Your task to perform on an android device: toggle translation in the chrome app Image 0: 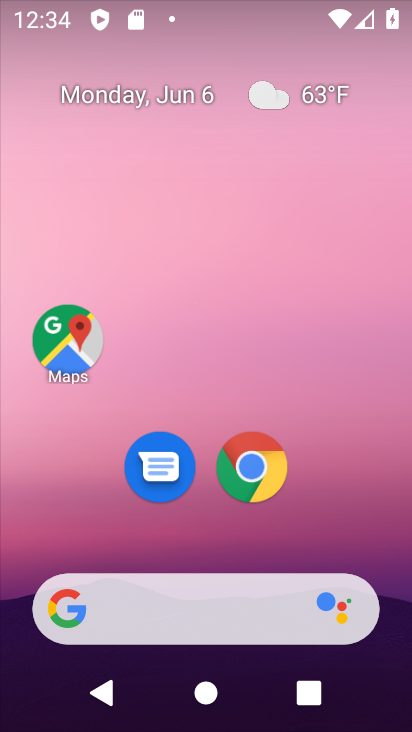
Step 0: drag from (392, 617) to (351, 164)
Your task to perform on an android device: toggle translation in the chrome app Image 1: 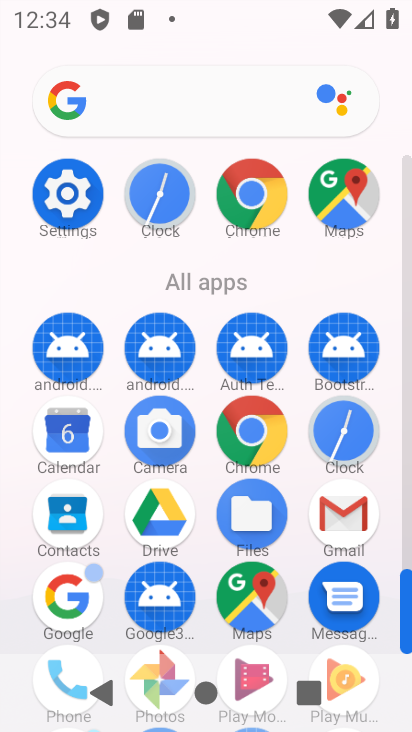
Step 1: click (274, 443)
Your task to perform on an android device: toggle translation in the chrome app Image 2: 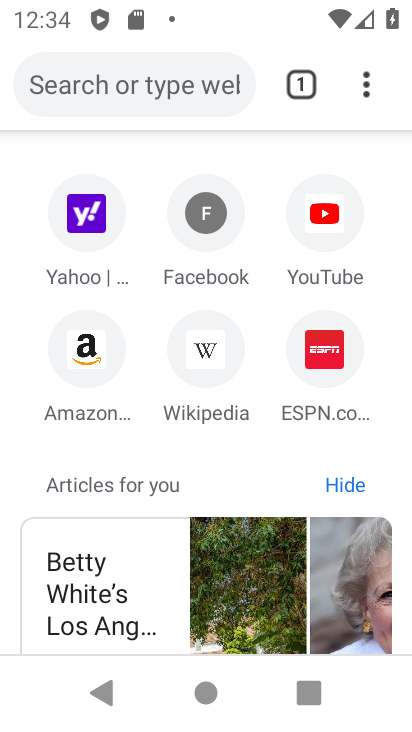
Step 2: click (370, 95)
Your task to perform on an android device: toggle translation in the chrome app Image 3: 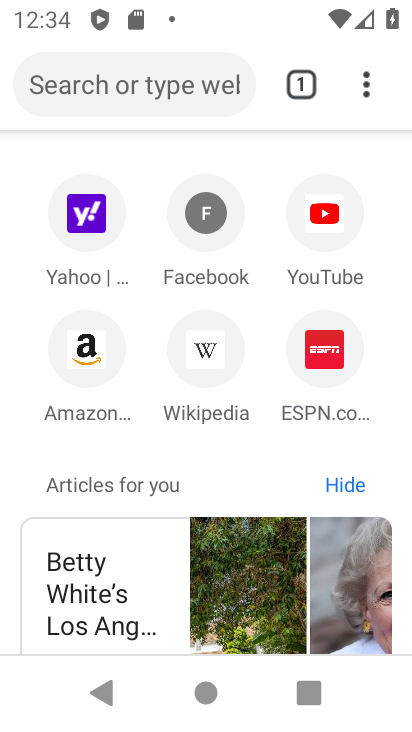
Step 3: click (361, 72)
Your task to perform on an android device: toggle translation in the chrome app Image 4: 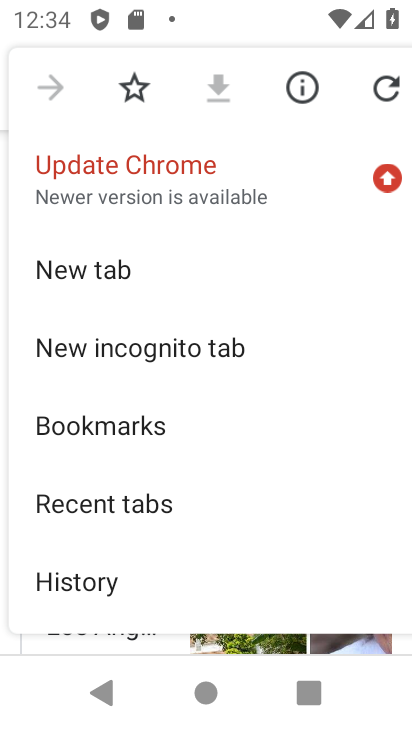
Step 4: drag from (160, 602) to (115, 137)
Your task to perform on an android device: toggle translation in the chrome app Image 5: 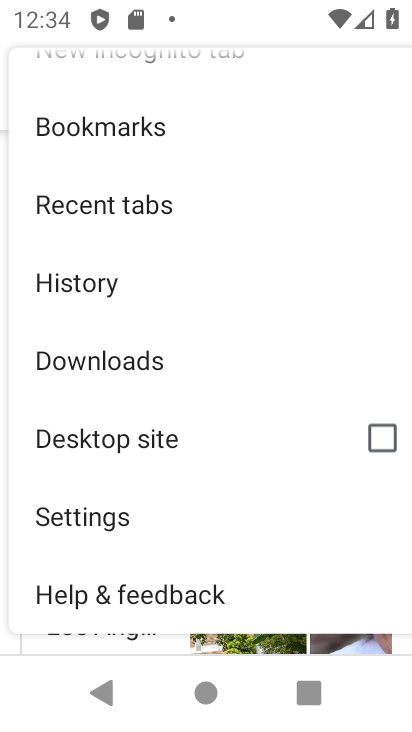
Step 5: click (116, 504)
Your task to perform on an android device: toggle translation in the chrome app Image 6: 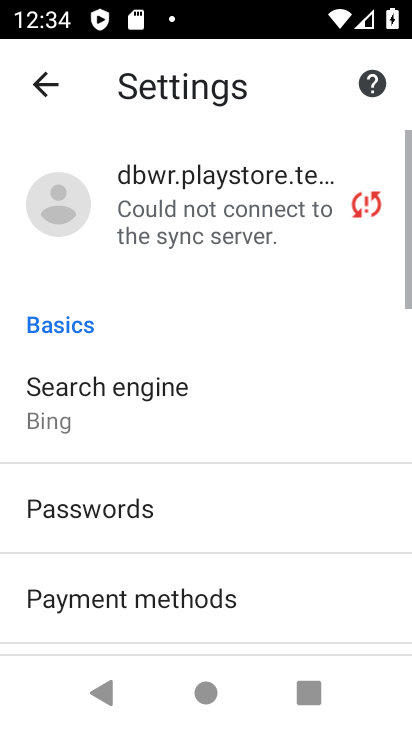
Step 6: drag from (149, 576) to (126, 143)
Your task to perform on an android device: toggle translation in the chrome app Image 7: 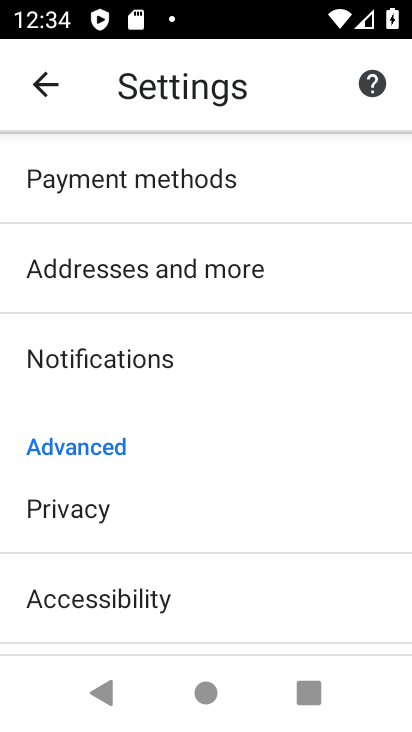
Step 7: drag from (110, 584) to (226, 105)
Your task to perform on an android device: toggle translation in the chrome app Image 8: 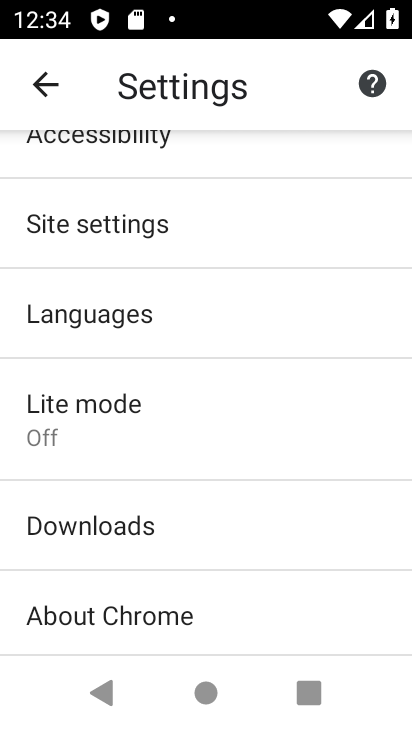
Step 8: click (152, 325)
Your task to perform on an android device: toggle translation in the chrome app Image 9: 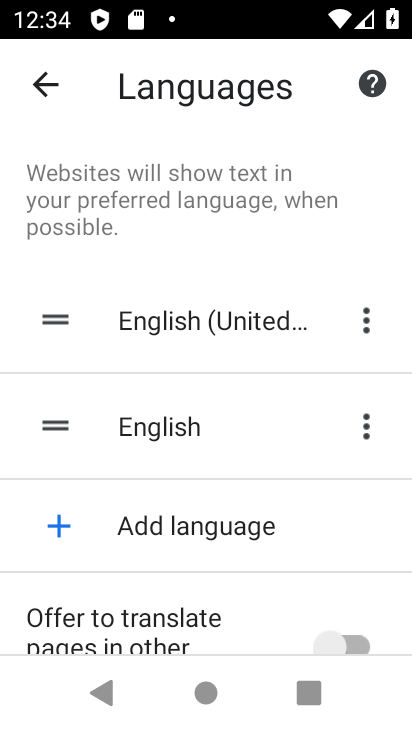
Step 9: click (291, 617)
Your task to perform on an android device: toggle translation in the chrome app Image 10: 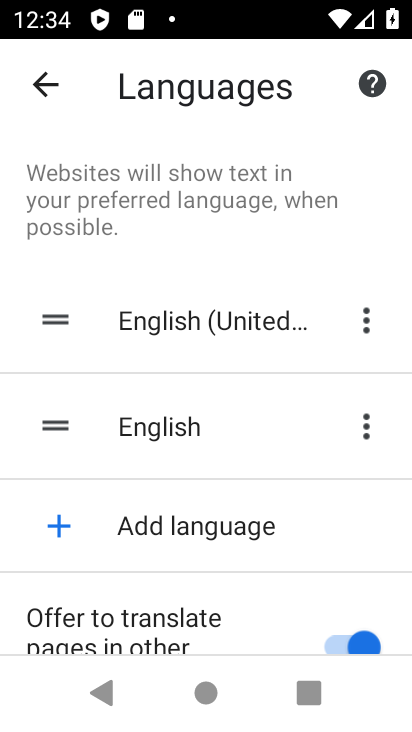
Step 10: task complete